Your task to perform on an android device: turn on the 24-hour format for clock Image 0: 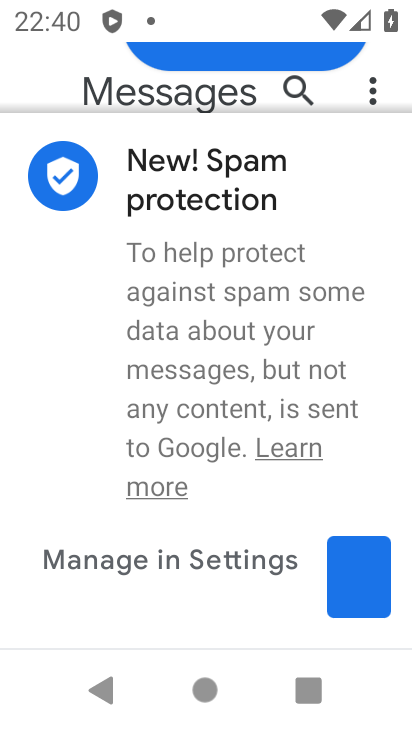
Step 0: drag from (173, 587) to (283, 113)
Your task to perform on an android device: turn on the 24-hour format for clock Image 1: 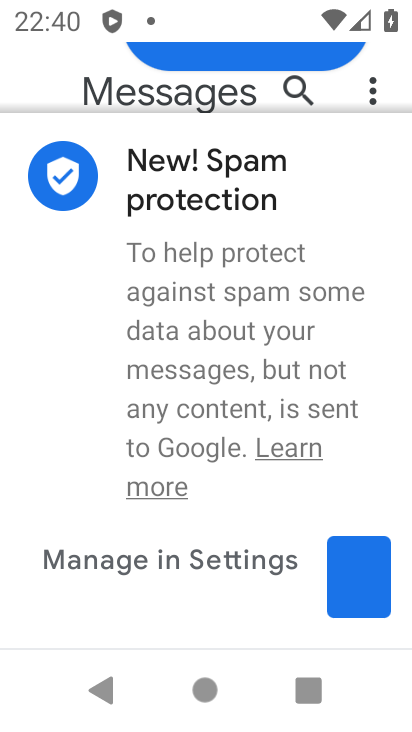
Step 1: press home button
Your task to perform on an android device: turn on the 24-hour format for clock Image 2: 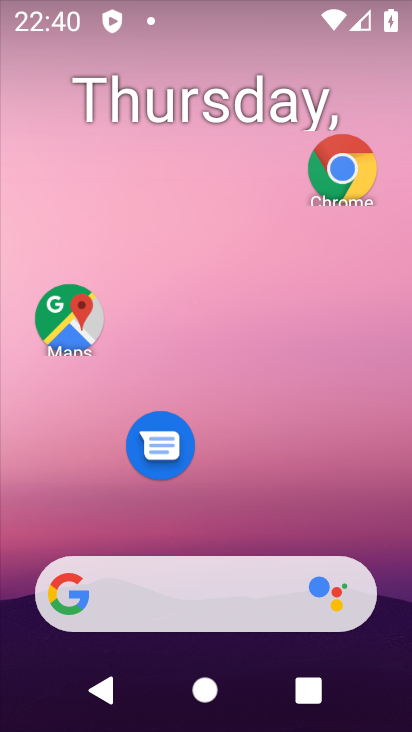
Step 2: drag from (218, 518) to (279, 246)
Your task to perform on an android device: turn on the 24-hour format for clock Image 3: 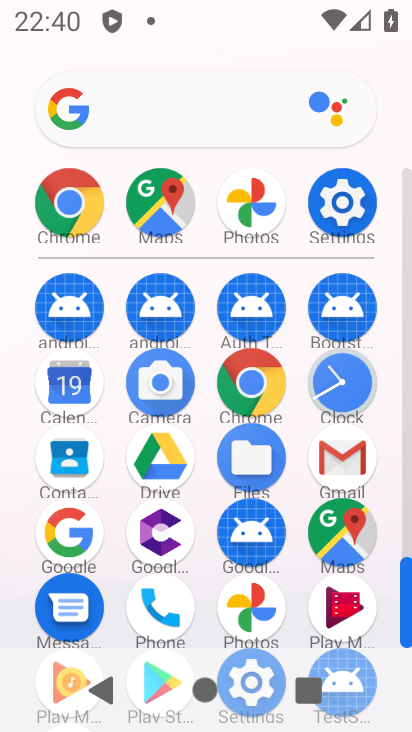
Step 3: click (330, 392)
Your task to perform on an android device: turn on the 24-hour format for clock Image 4: 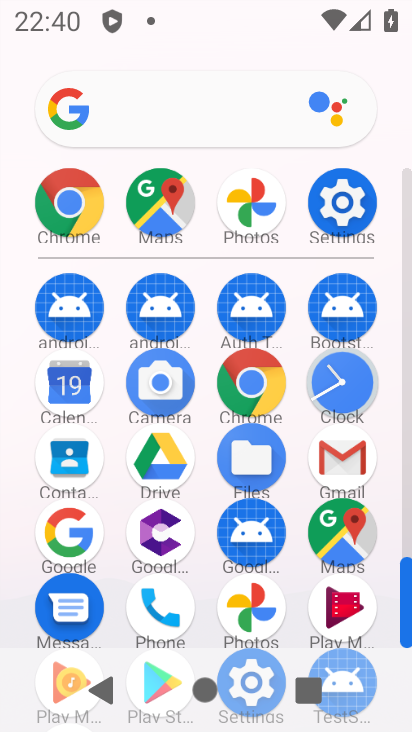
Step 4: click (330, 392)
Your task to perform on an android device: turn on the 24-hour format for clock Image 5: 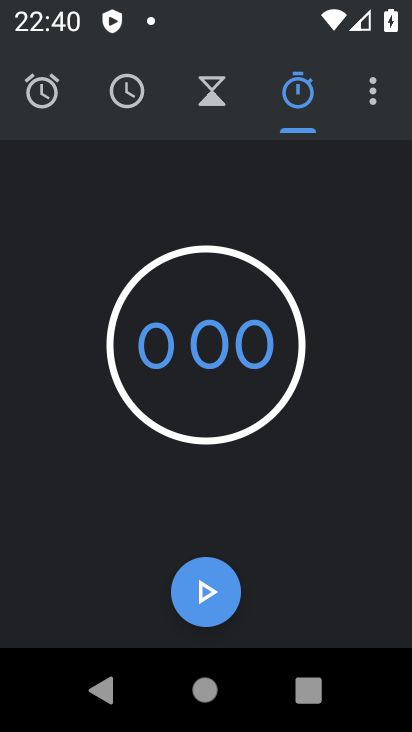
Step 5: click (380, 116)
Your task to perform on an android device: turn on the 24-hour format for clock Image 6: 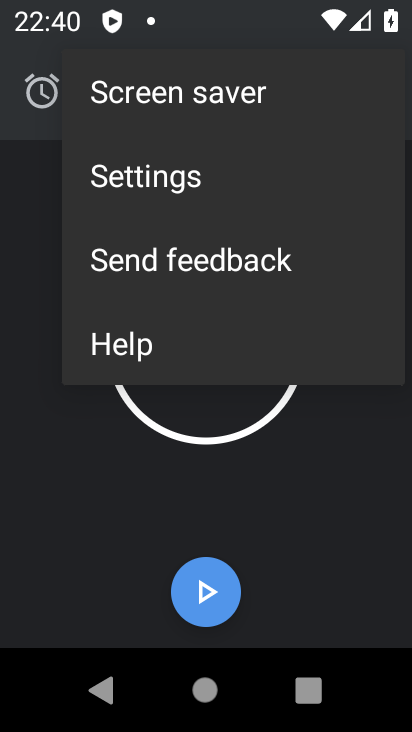
Step 6: click (195, 166)
Your task to perform on an android device: turn on the 24-hour format for clock Image 7: 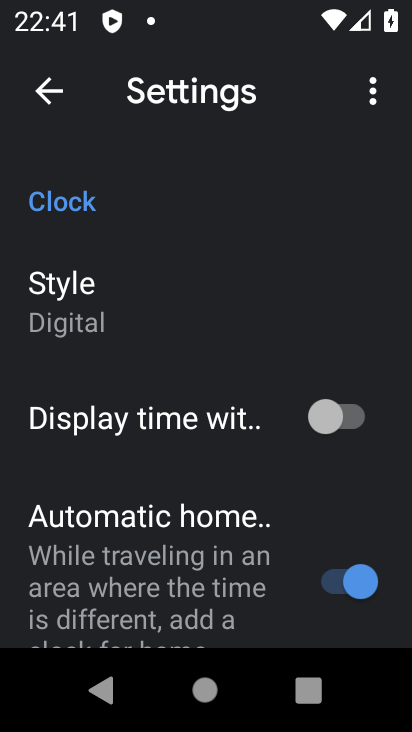
Step 7: drag from (179, 480) to (228, 169)
Your task to perform on an android device: turn on the 24-hour format for clock Image 8: 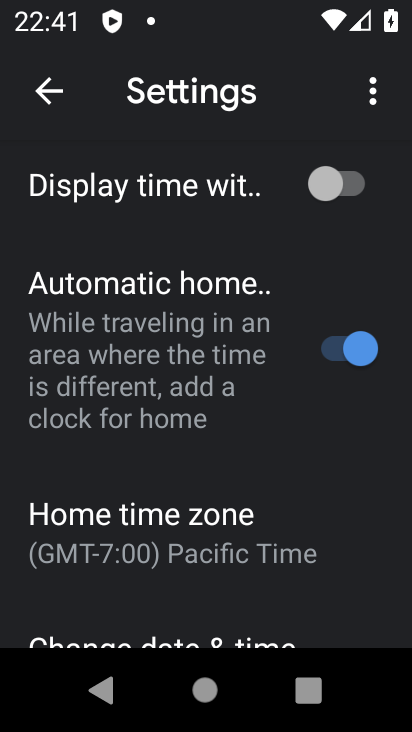
Step 8: drag from (227, 514) to (307, 117)
Your task to perform on an android device: turn on the 24-hour format for clock Image 9: 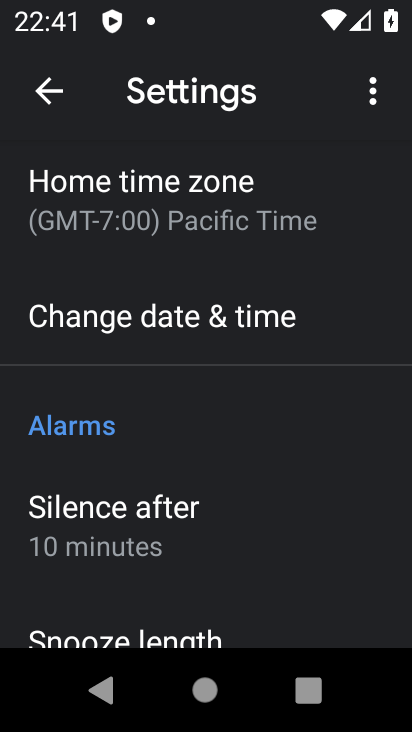
Step 9: click (139, 322)
Your task to perform on an android device: turn on the 24-hour format for clock Image 10: 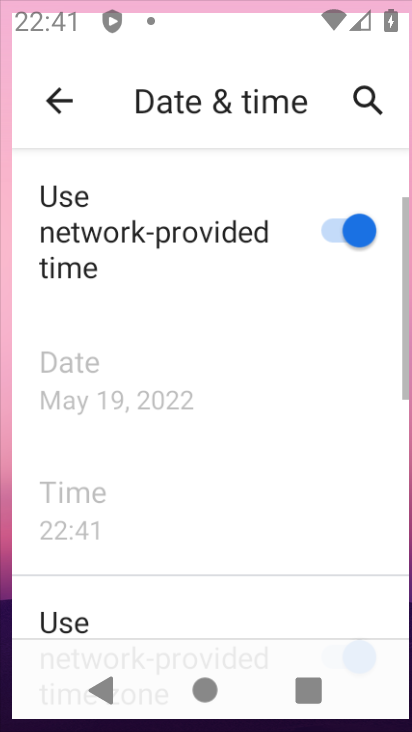
Step 10: task complete